Your task to perform on an android device: Google the capital of Peru Image 0: 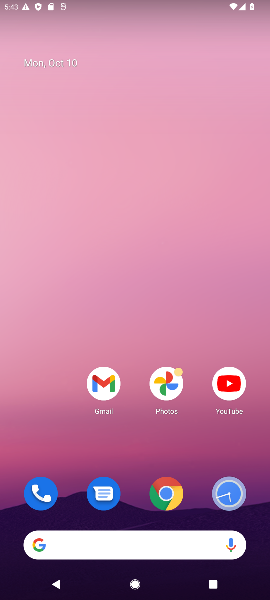
Step 0: click (107, 542)
Your task to perform on an android device: Google the capital of Peru Image 1: 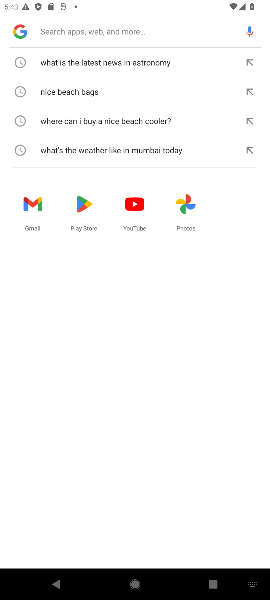
Step 1: type "the capital of Peru"
Your task to perform on an android device: Google the capital of Peru Image 2: 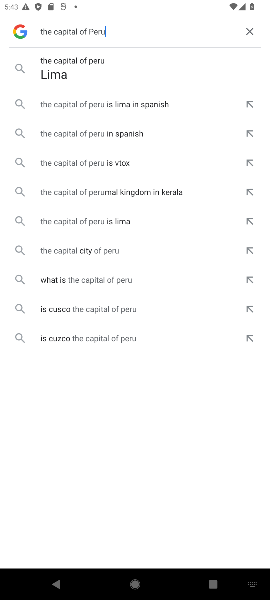
Step 2: click (101, 74)
Your task to perform on an android device: Google the capital of Peru Image 3: 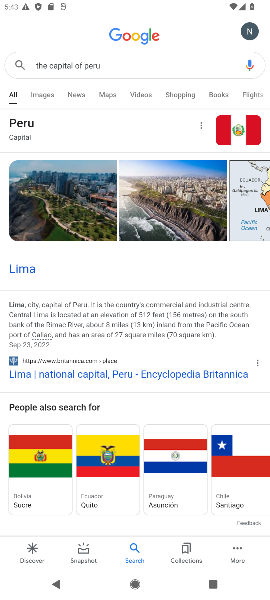
Step 3: task complete